Your task to perform on an android device: turn vacation reply on in the gmail app Image 0: 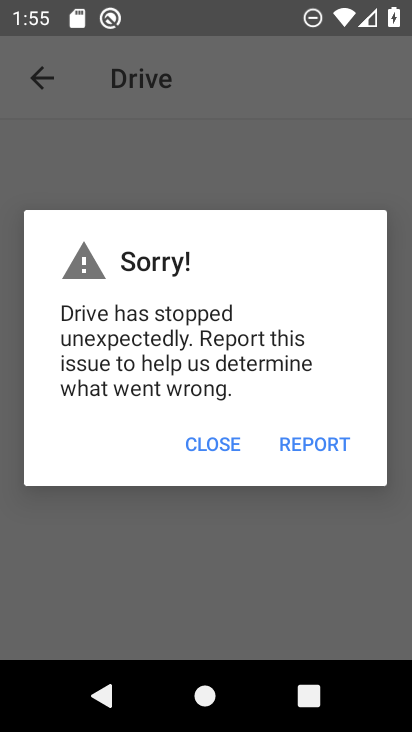
Step 0: press home button
Your task to perform on an android device: turn vacation reply on in the gmail app Image 1: 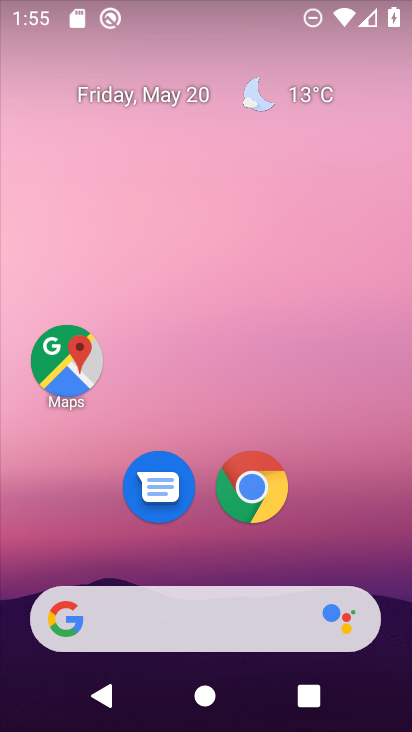
Step 1: drag from (211, 568) to (231, 45)
Your task to perform on an android device: turn vacation reply on in the gmail app Image 2: 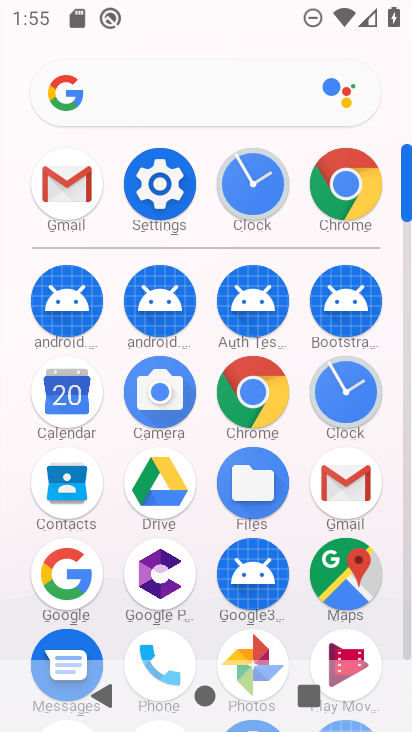
Step 2: click (63, 173)
Your task to perform on an android device: turn vacation reply on in the gmail app Image 3: 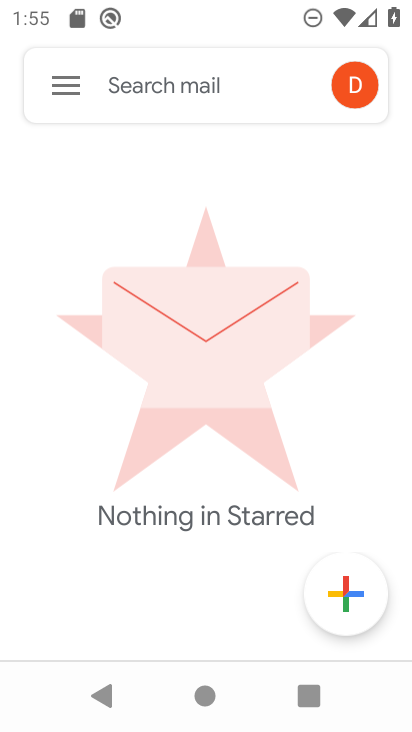
Step 3: click (69, 85)
Your task to perform on an android device: turn vacation reply on in the gmail app Image 4: 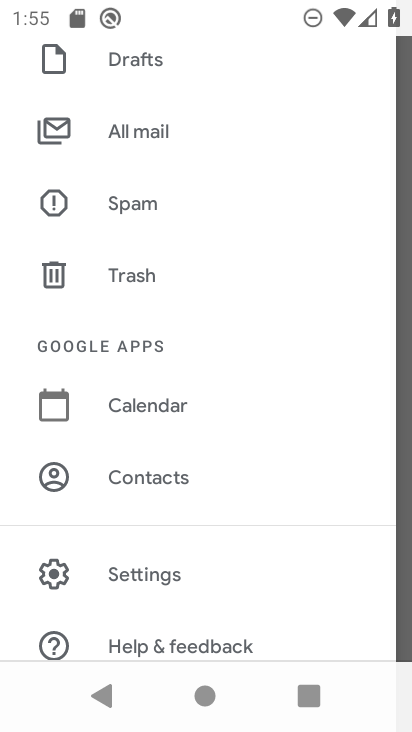
Step 4: click (192, 574)
Your task to perform on an android device: turn vacation reply on in the gmail app Image 5: 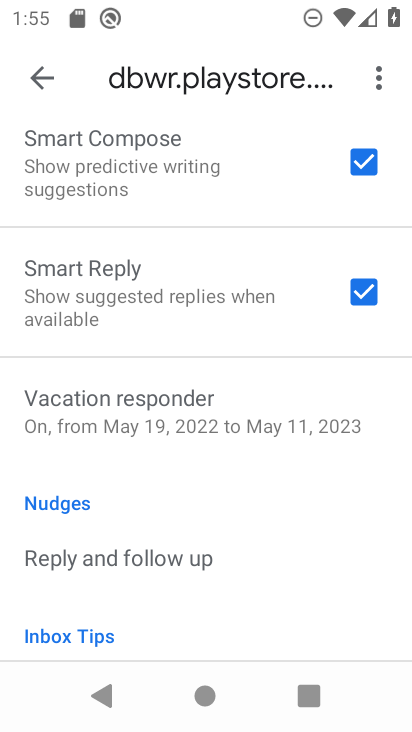
Step 5: click (232, 403)
Your task to perform on an android device: turn vacation reply on in the gmail app Image 6: 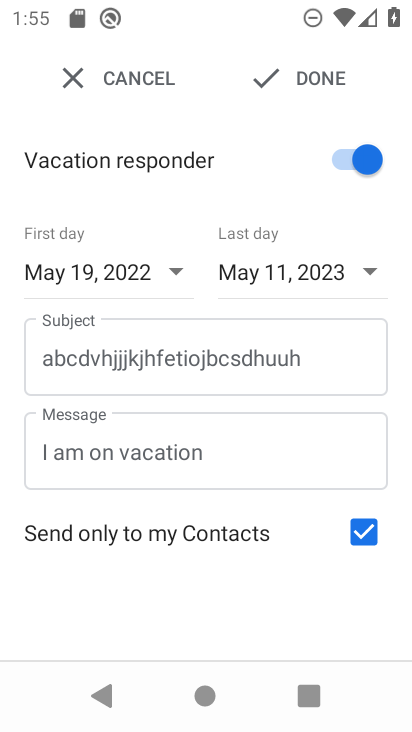
Step 6: task complete